Your task to perform on an android device: empty trash in the gmail app Image 0: 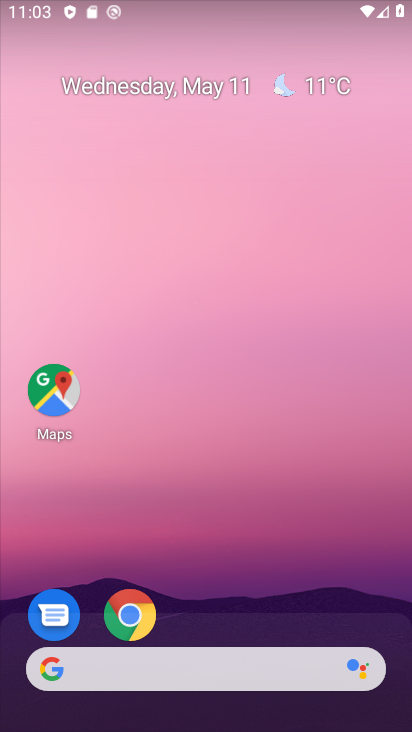
Step 0: drag from (201, 650) to (299, 125)
Your task to perform on an android device: empty trash in the gmail app Image 1: 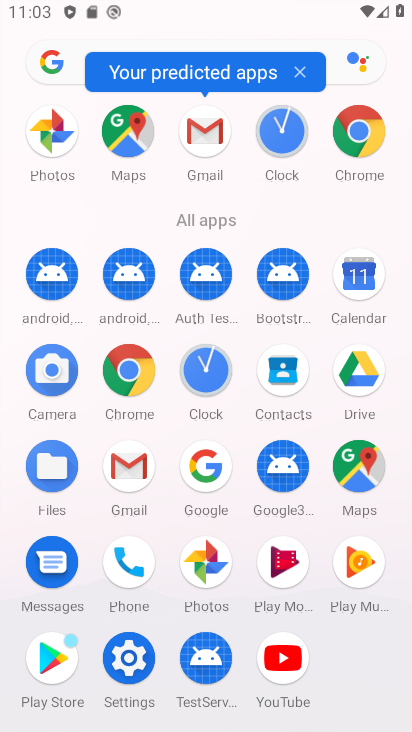
Step 1: click (120, 467)
Your task to perform on an android device: empty trash in the gmail app Image 2: 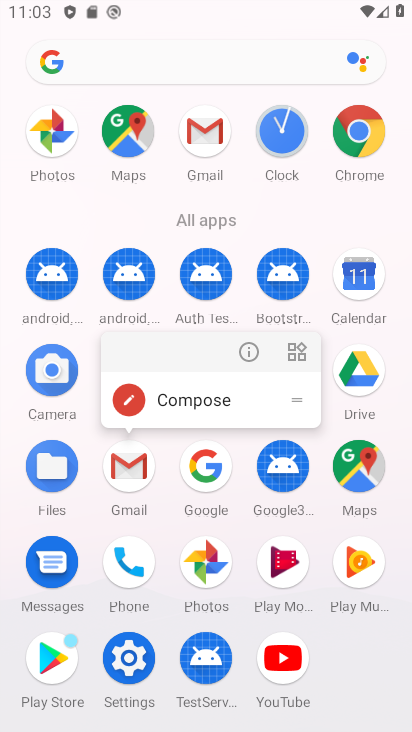
Step 2: click (126, 475)
Your task to perform on an android device: empty trash in the gmail app Image 3: 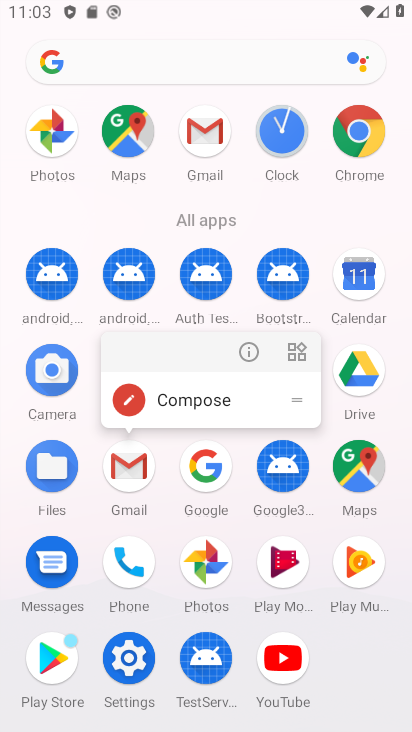
Step 3: click (131, 475)
Your task to perform on an android device: empty trash in the gmail app Image 4: 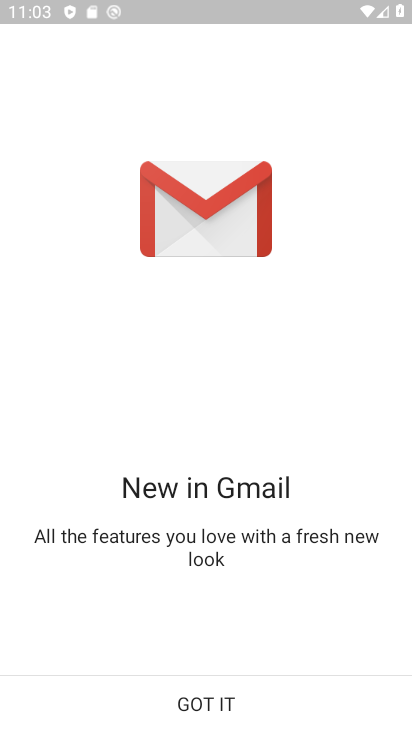
Step 4: click (204, 703)
Your task to perform on an android device: empty trash in the gmail app Image 5: 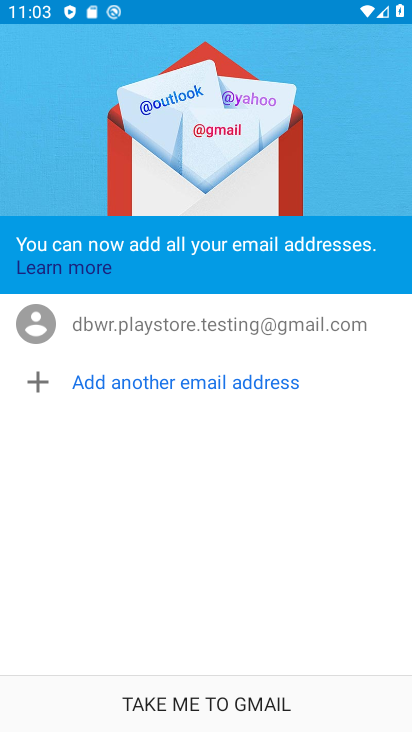
Step 5: click (207, 702)
Your task to perform on an android device: empty trash in the gmail app Image 6: 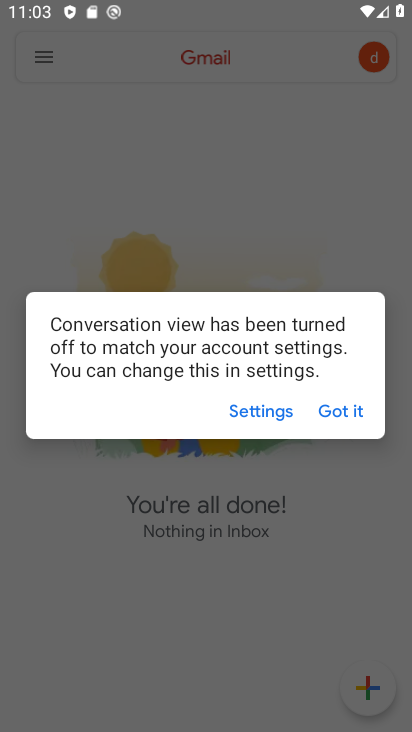
Step 6: click (347, 427)
Your task to perform on an android device: empty trash in the gmail app Image 7: 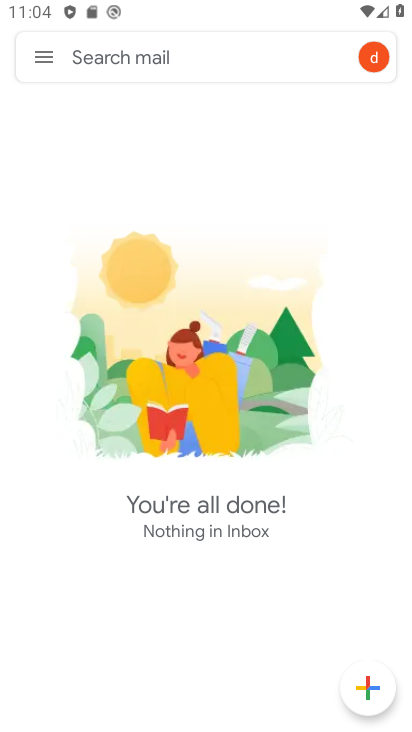
Step 7: click (44, 50)
Your task to perform on an android device: empty trash in the gmail app Image 8: 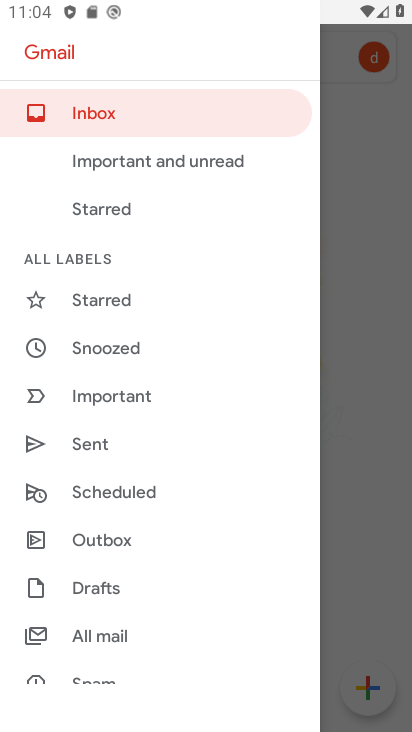
Step 8: drag from (159, 612) to (200, 432)
Your task to perform on an android device: empty trash in the gmail app Image 9: 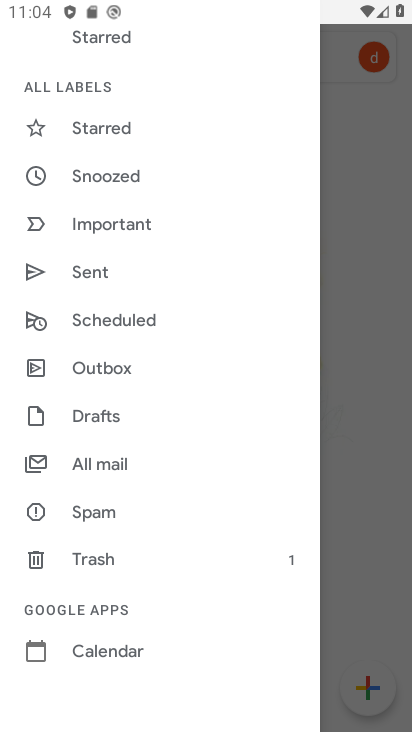
Step 9: click (143, 556)
Your task to perform on an android device: empty trash in the gmail app Image 10: 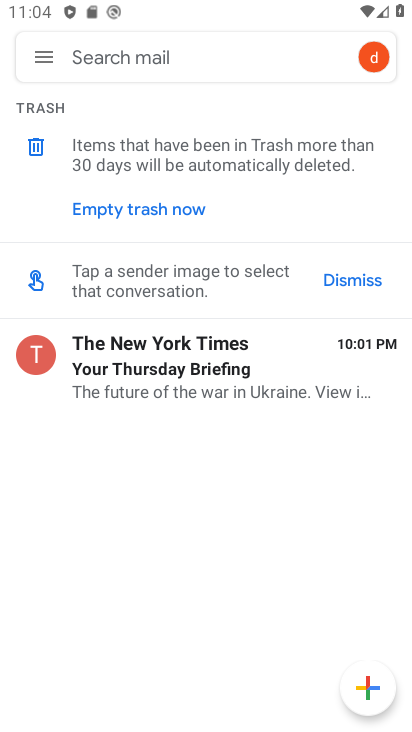
Step 10: click (182, 208)
Your task to perform on an android device: empty trash in the gmail app Image 11: 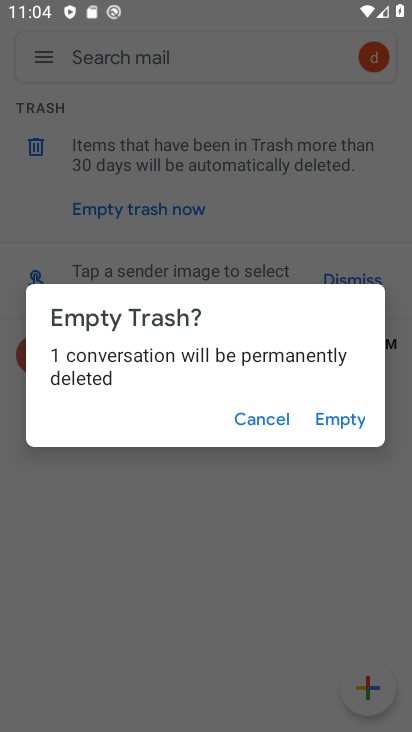
Step 11: click (349, 418)
Your task to perform on an android device: empty trash in the gmail app Image 12: 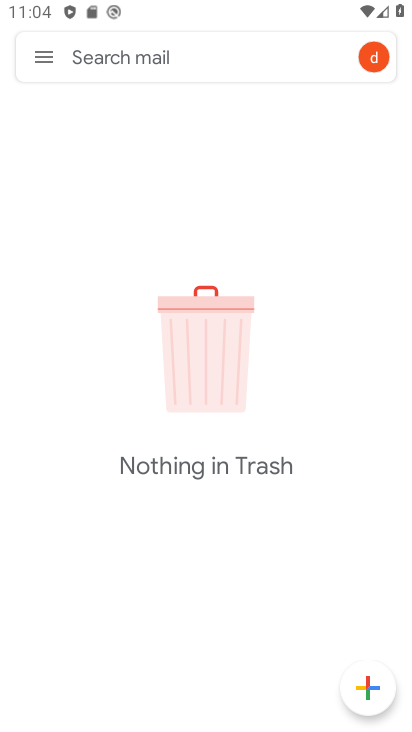
Step 12: task complete